Your task to perform on an android device: snooze an email in the gmail app Image 0: 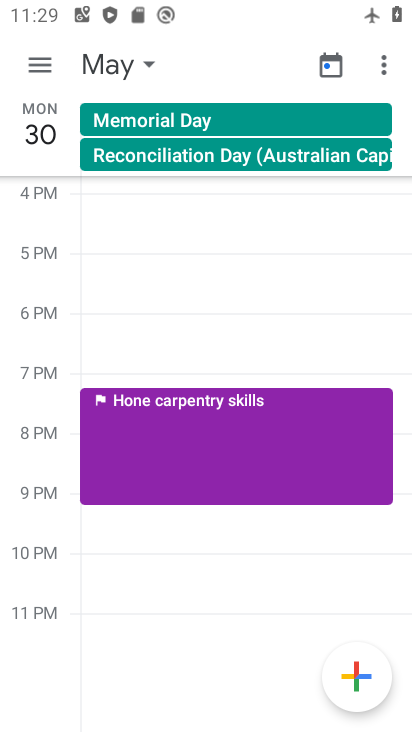
Step 0: press home button
Your task to perform on an android device: snooze an email in the gmail app Image 1: 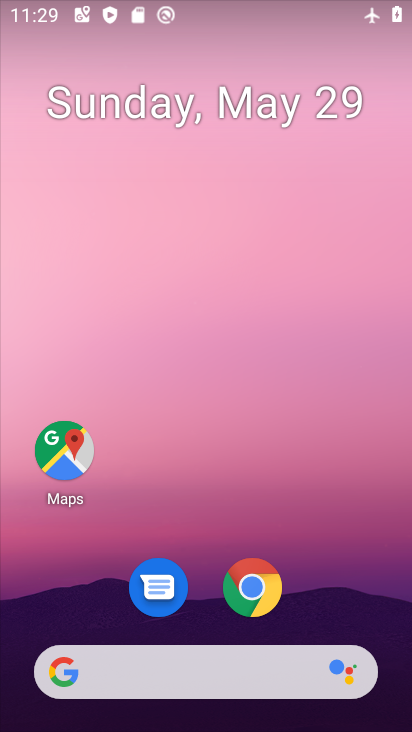
Step 1: drag from (344, 542) to (139, 23)
Your task to perform on an android device: snooze an email in the gmail app Image 2: 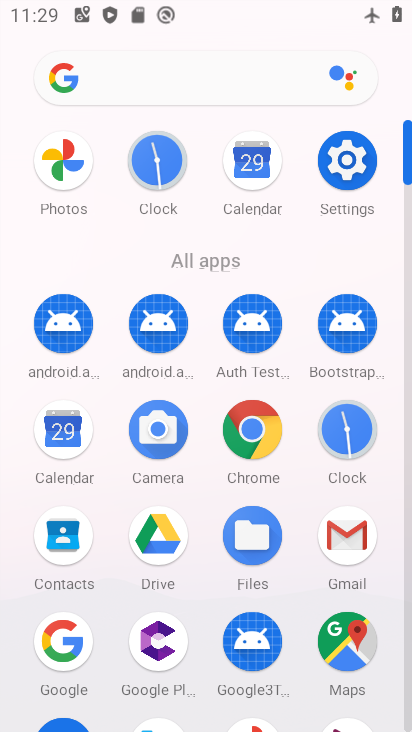
Step 2: click (349, 527)
Your task to perform on an android device: snooze an email in the gmail app Image 3: 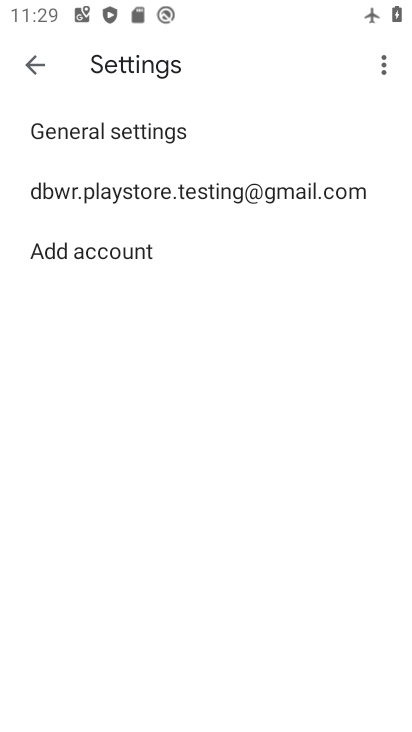
Step 3: click (35, 66)
Your task to perform on an android device: snooze an email in the gmail app Image 4: 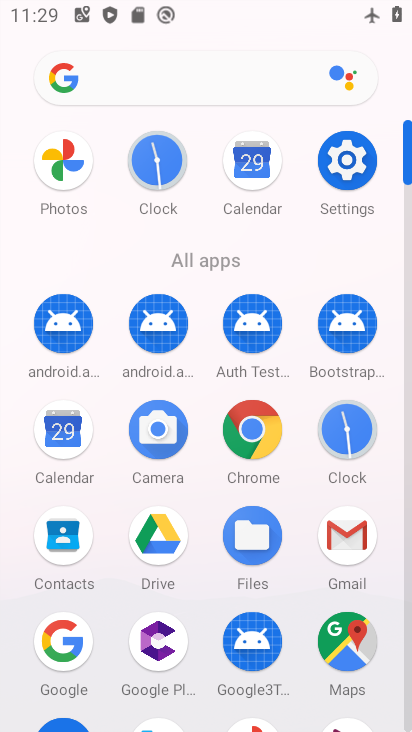
Step 4: click (347, 527)
Your task to perform on an android device: snooze an email in the gmail app Image 5: 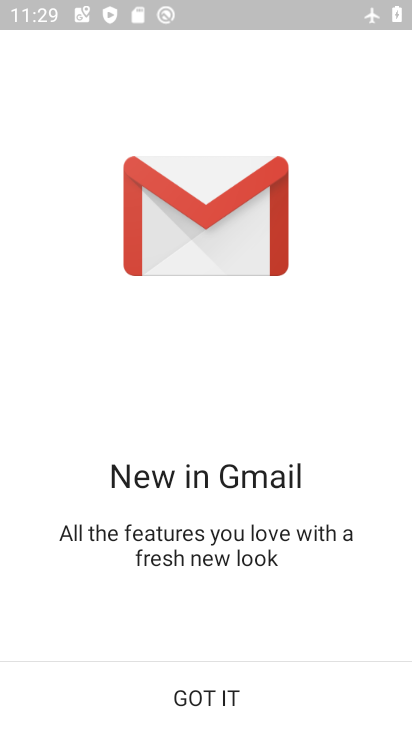
Step 5: click (237, 687)
Your task to perform on an android device: snooze an email in the gmail app Image 6: 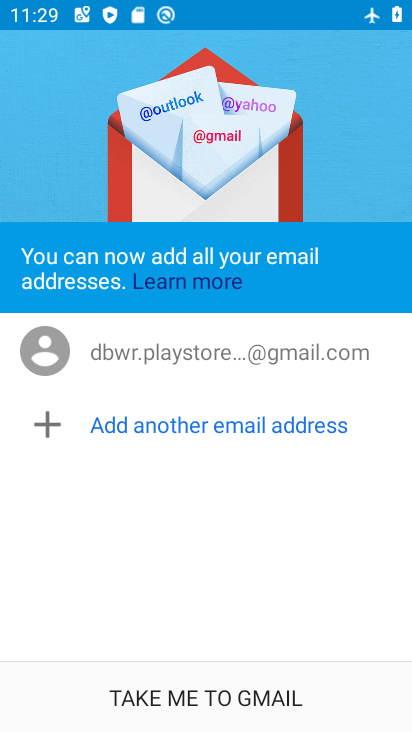
Step 6: click (237, 699)
Your task to perform on an android device: snooze an email in the gmail app Image 7: 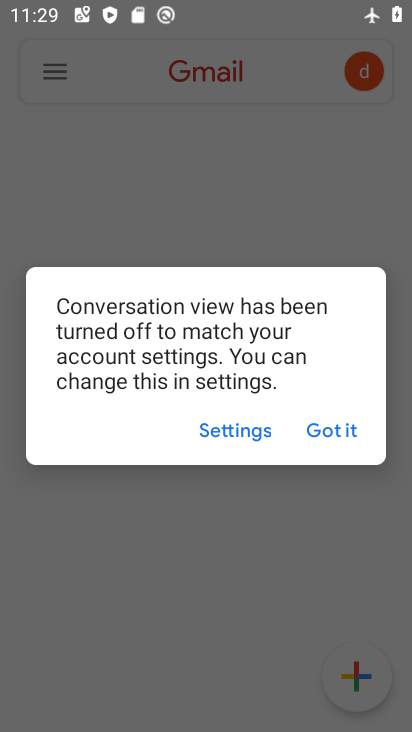
Step 7: click (327, 431)
Your task to perform on an android device: snooze an email in the gmail app Image 8: 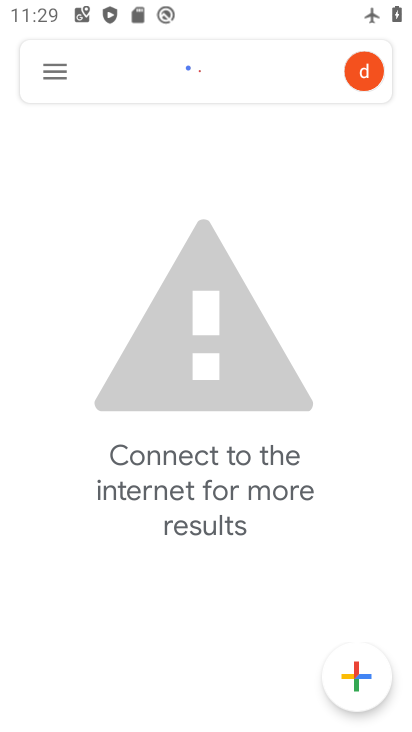
Step 8: click (48, 77)
Your task to perform on an android device: snooze an email in the gmail app Image 9: 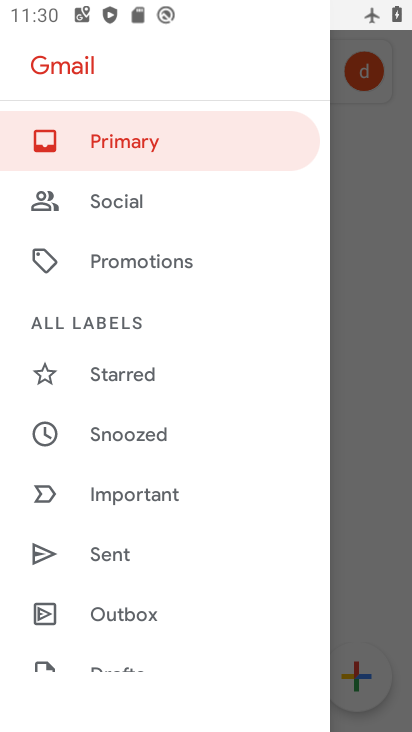
Step 9: drag from (136, 489) to (176, 133)
Your task to perform on an android device: snooze an email in the gmail app Image 10: 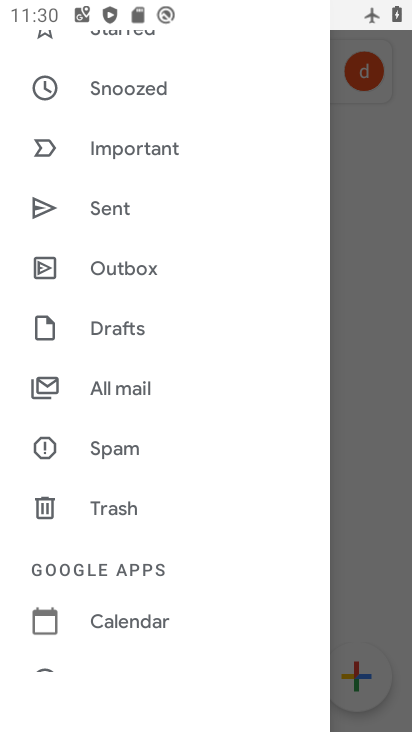
Step 10: click (146, 396)
Your task to perform on an android device: snooze an email in the gmail app Image 11: 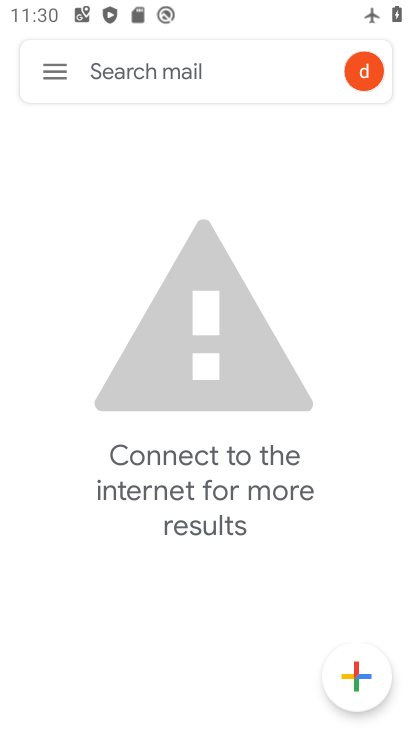
Step 11: task complete